Your task to perform on an android device: Open notification settings Image 0: 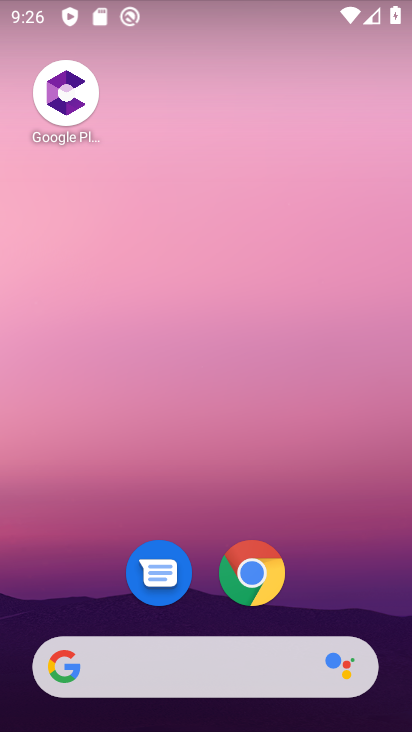
Step 0: drag from (339, 553) to (196, 59)
Your task to perform on an android device: Open notification settings Image 1: 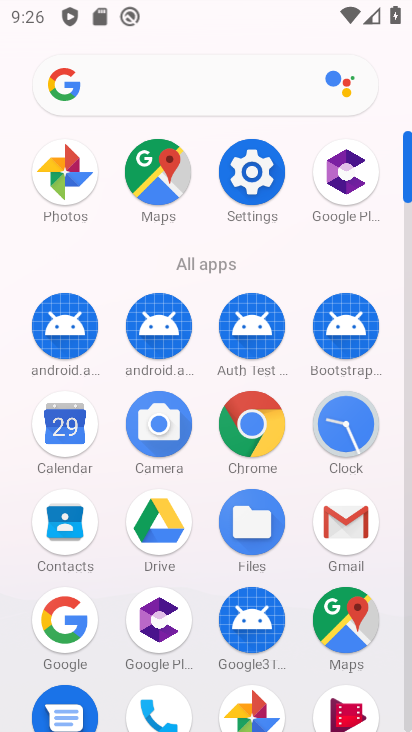
Step 1: click (249, 186)
Your task to perform on an android device: Open notification settings Image 2: 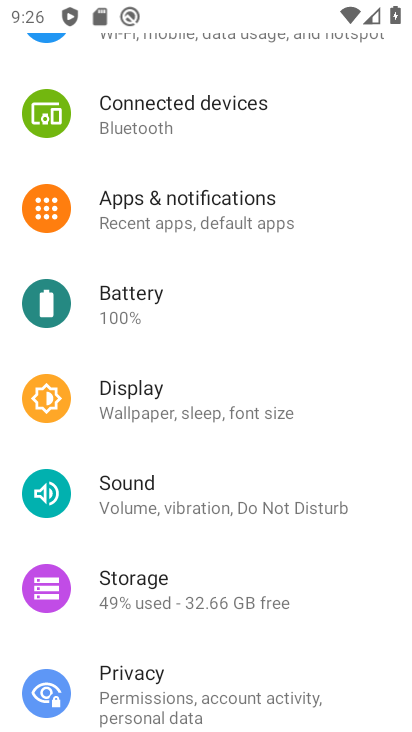
Step 2: click (231, 210)
Your task to perform on an android device: Open notification settings Image 3: 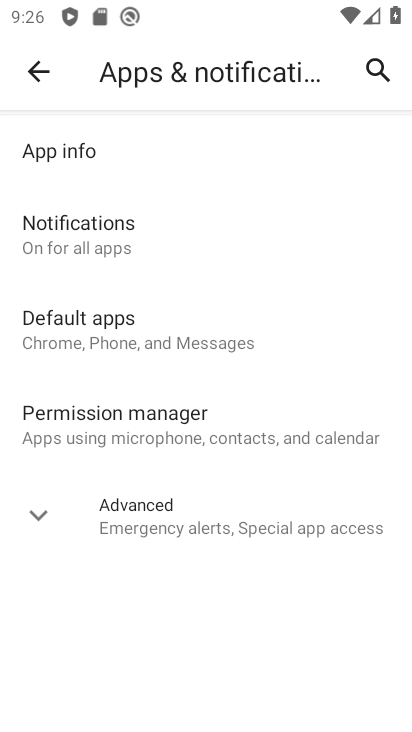
Step 3: task complete